Your task to perform on an android device: What's the price of the Sony TV? Image 0: 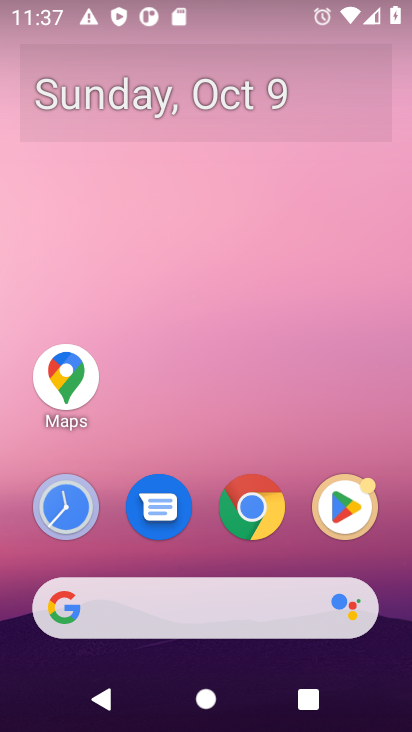
Step 0: press home button
Your task to perform on an android device: What's the price of the Sony TV? Image 1: 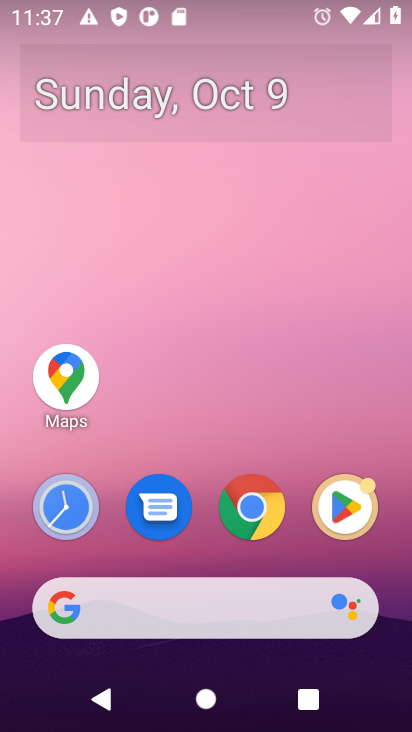
Step 1: click (212, 603)
Your task to perform on an android device: What's the price of the Sony TV? Image 2: 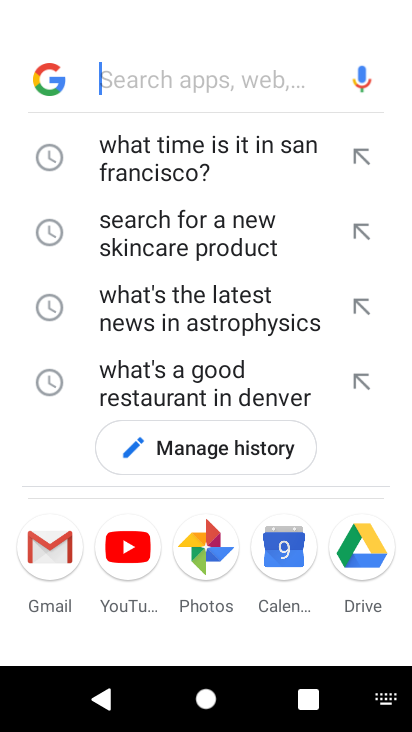
Step 2: type "What's the price of the Sony TV"
Your task to perform on an android device: What's the price of the Sony TV? Image 3: 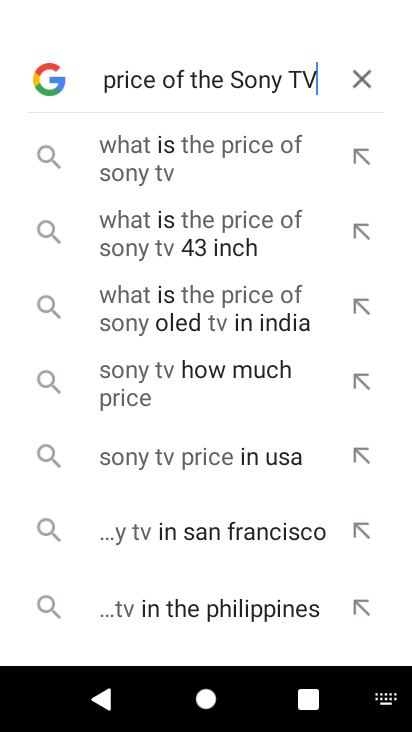
Step 3: press enter
Your task to perform on an android device: What's the price of the Sony TV? Image 4: 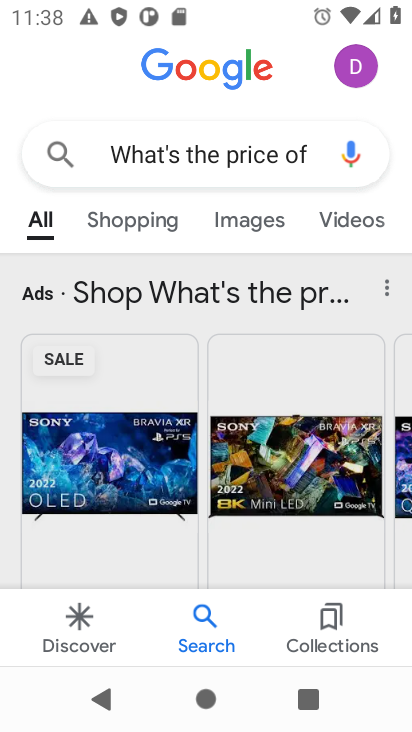
Step 4: task complete